Your task to perform on an android device: check out phone information Image 0: 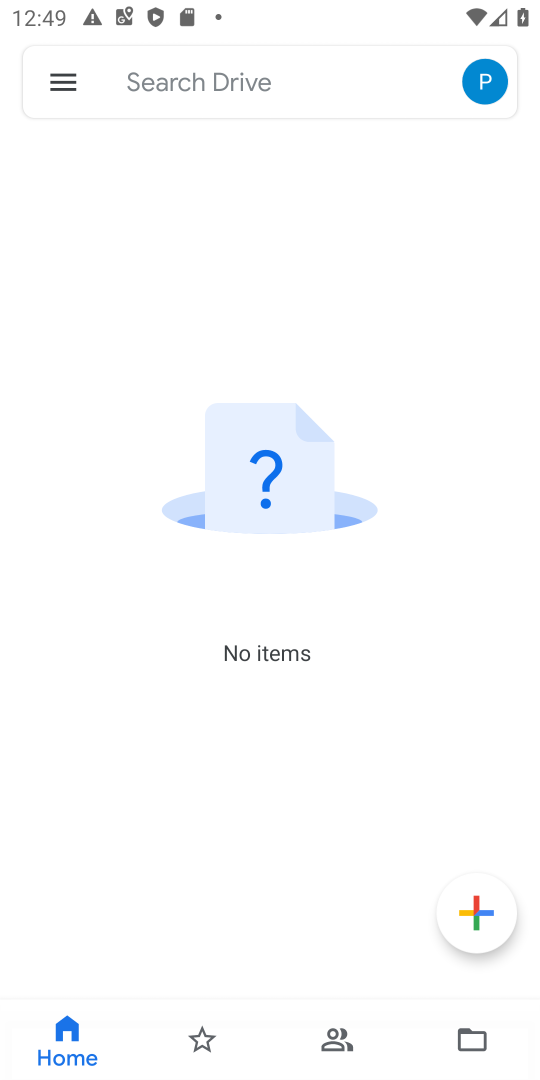
Step 0: press home button
Your task to perform on an android device: check out phone information Image 1: 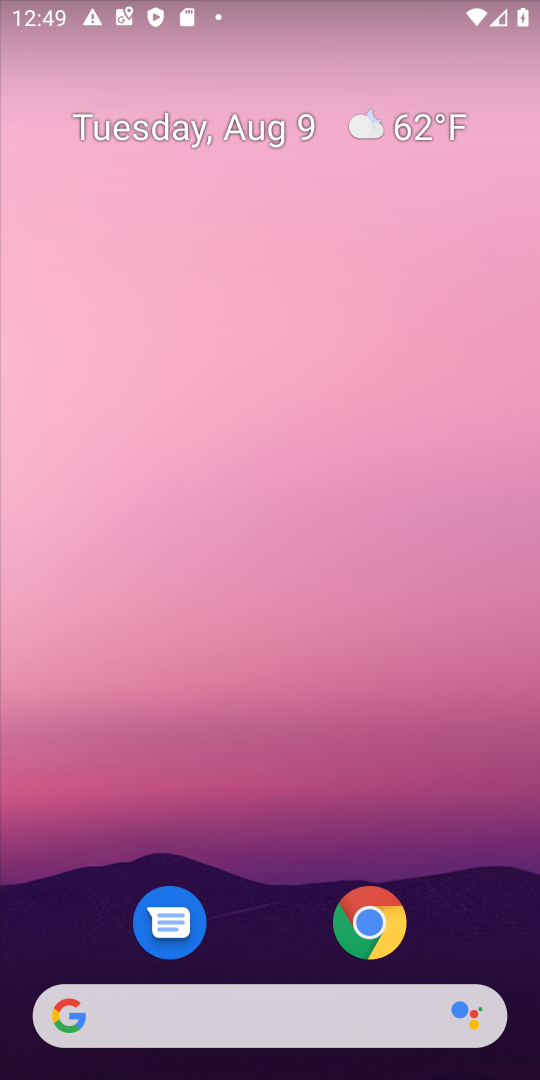
Step 1: drag from (288, 944) to (308, 39)
Your task to perform on an android device: check out phone information Image 2: 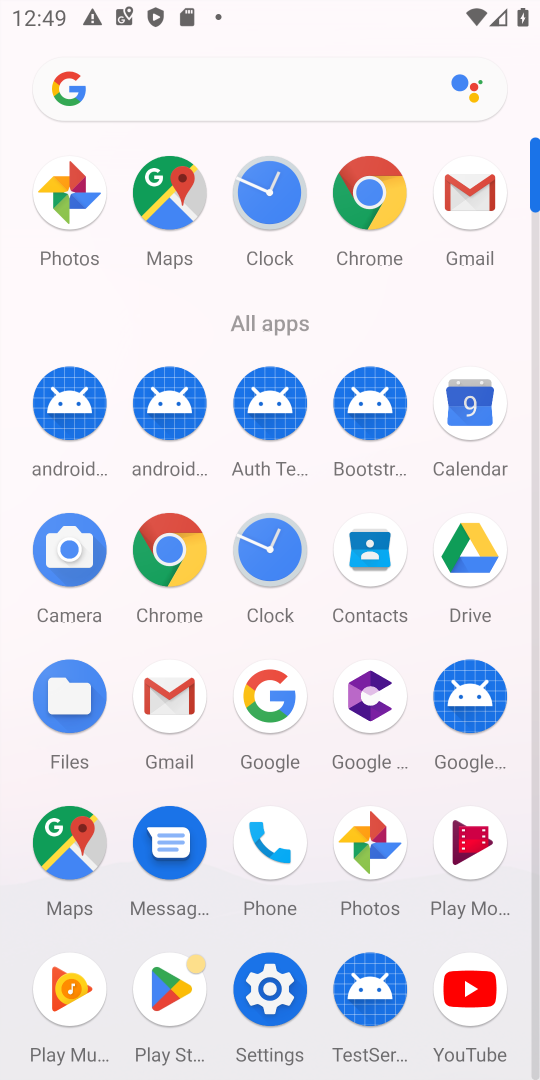
Step 2: click (292, 982)
Your task to perform on an android device: check out phone information Image 3: 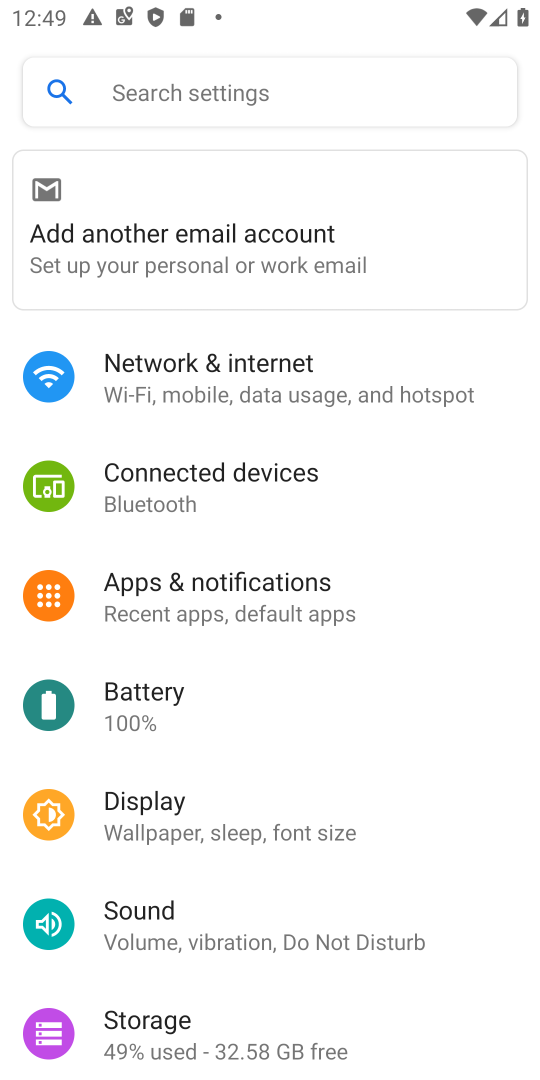
Step 3: task complete